Your task to perform on an android device: Show me productivity apps on the Play Store Image 0: 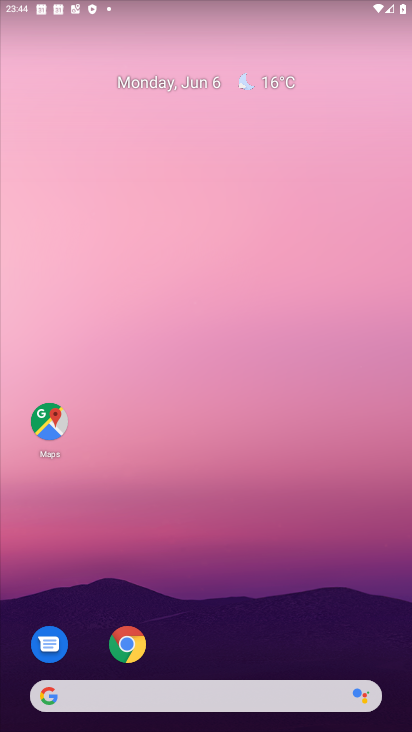
Step 0: drag from (245, 610) to (208, 1)
Your task to perform on an android device: Show me productivity apps on the Play Store Image 1: 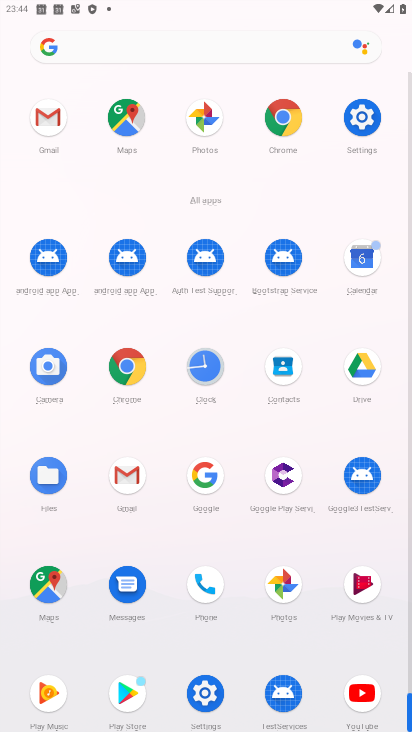
Step 1: click (125, 688)
Your task to perform on an android device: Show me productivity apps on the Play Store Image 2: 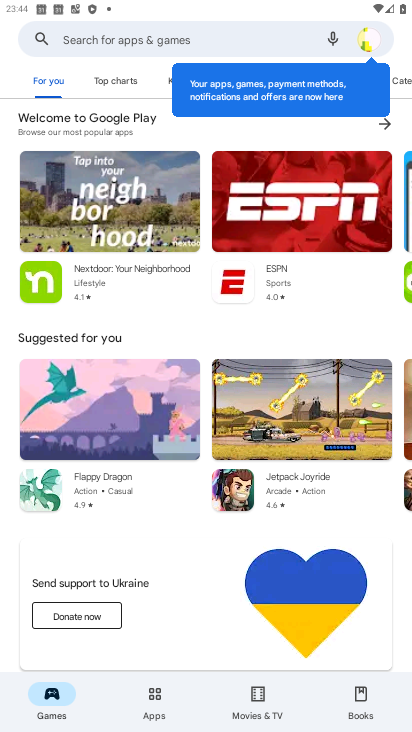
Step 2: click (151, 690)
Your task to perform on an android device: Show me productivity apps on the Play Store Image 3: 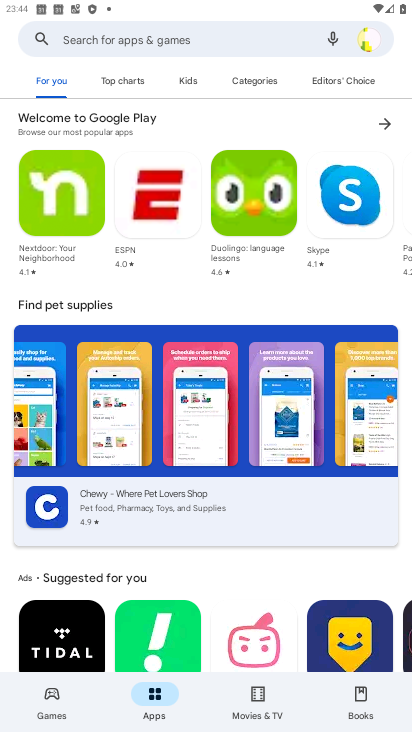
Step 3: task complete